Your task to perform on an android device: Open Google Maps and go to "Timeline" Image 0: 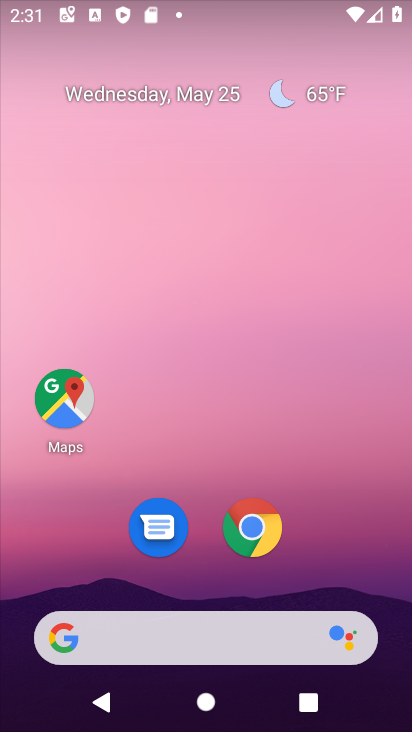
Step 0: drag from (244, 673) to (340, 37)
Your task to perform on an android device: Open Google Maps and go to "Timeline" Image 1: 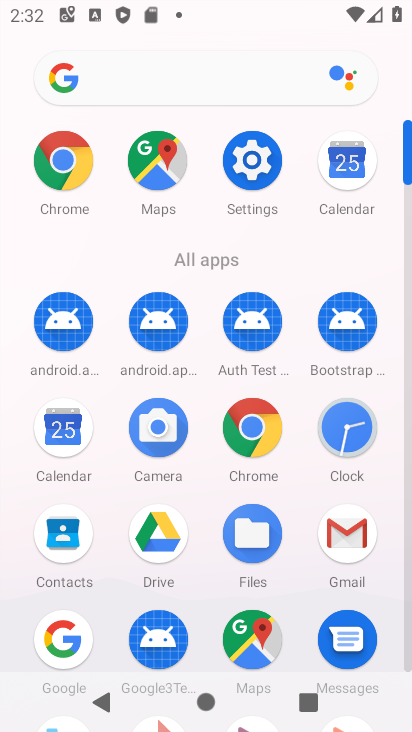
Step 1: click (242, 643)
Your task to perform on an android device: Open Google Maps and go to "Timeline" Image 2: 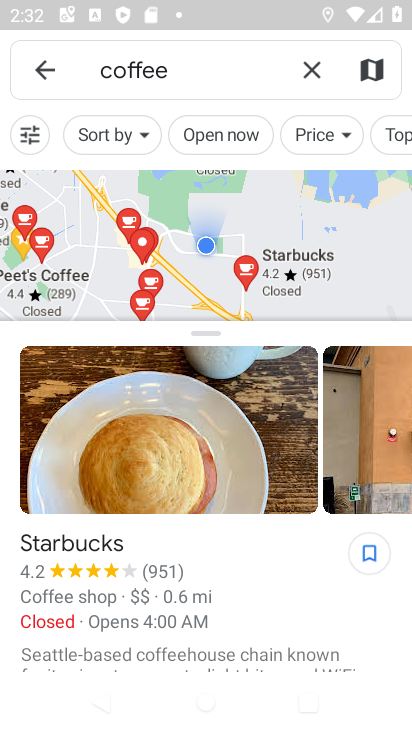
Step 2: press back button
Your task to perform on an android device: Open Google Maps and go to "Timeline" Image 3: 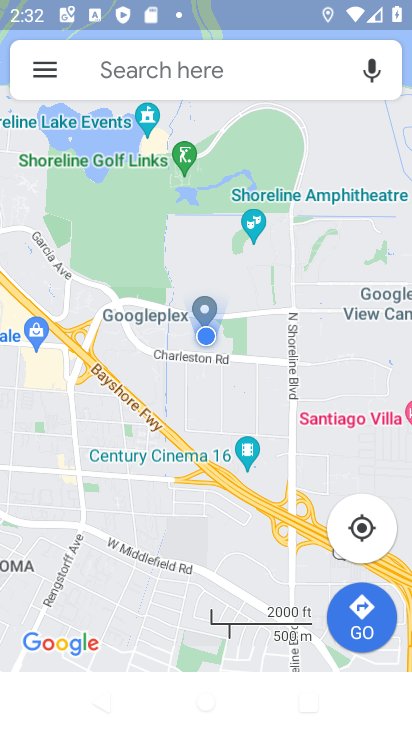
Step 3: click (41, 67)
Your task to perform on an android device: Open Google Maps and go to "Timeline" Image 4: 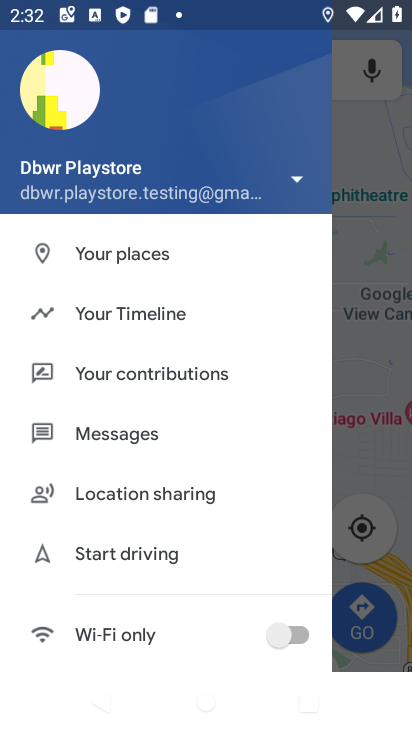
Step 4: click (203, 308)
Your task to perform on an android device: Open Google Maps and go to "Timeline" Image 5: 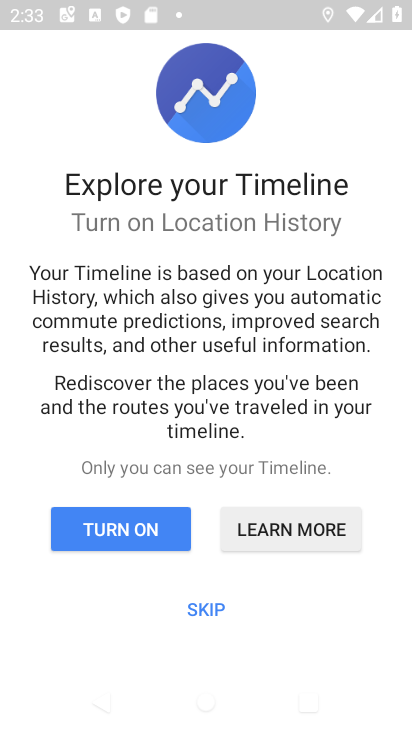
Step 5: click (213, 599)
Your task to perform on an android device: Open Google Maps and go to "Timeline" Image 6: 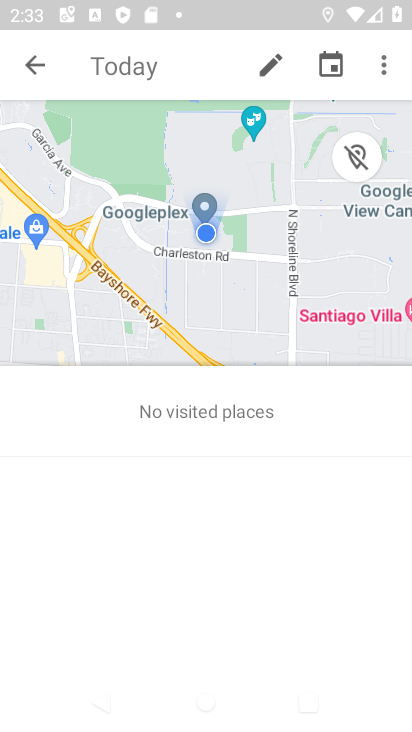
Step 6: task complete